Your task to perform on an android device: allow cookies in the chrome app Image 0: 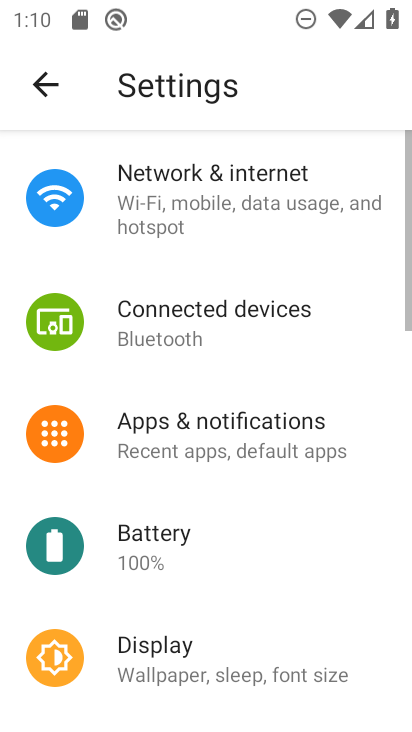
Step 0: press back button
Your task to perform on an android device: allow cookies in the chrome app Image 1: 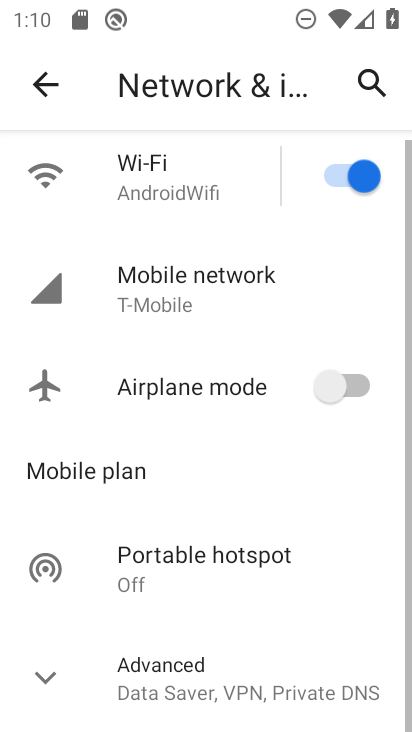
Step 1: press home button
Your task to perform on an android device: allow cookies in the chrome app Image 2: 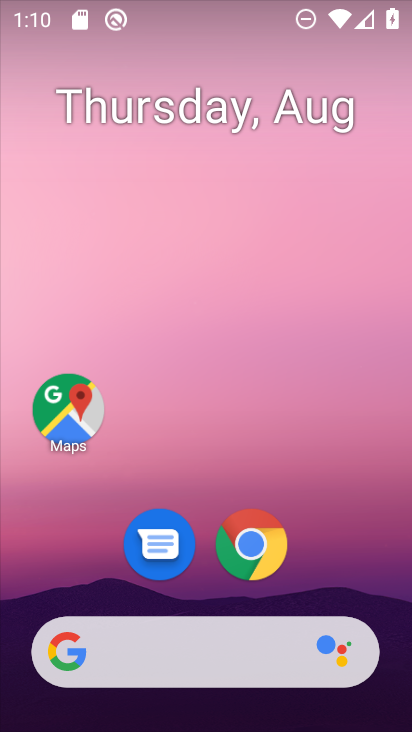
Step 2: drag from (232, 621) to (388, 10)
Your task to perform on an android device: allow cookies in the chrome app Image 3: 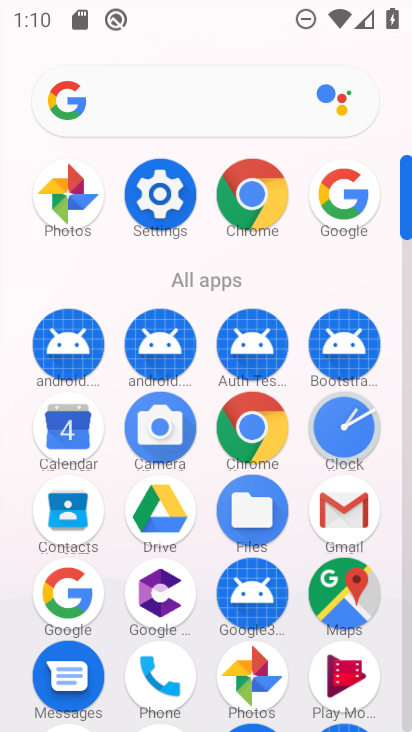
Step 3: click (224, 220)
Your task to perform on an android device: allow cookies in the chrome app Image 4: 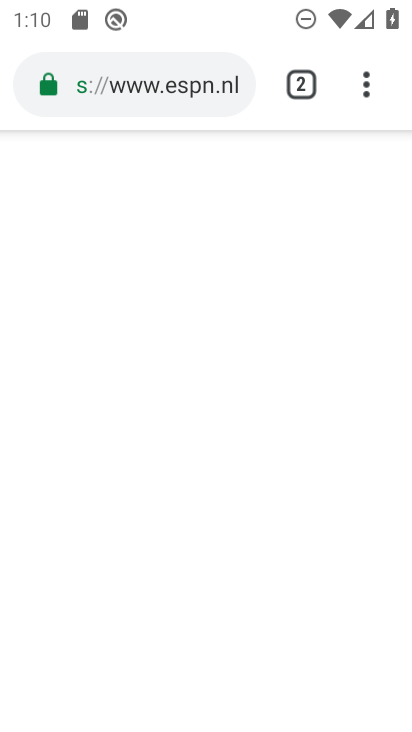
Step 4: click (356, 77)
Your task to perform on an android device: allow cookies in the chrome app Image 5: 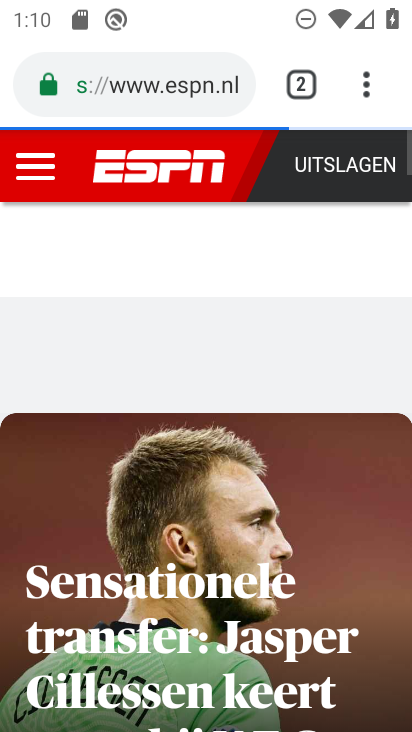
Step 5: click (359, 89)
Your task to perform on an android device: allow cookies in the chrome app Image 6: 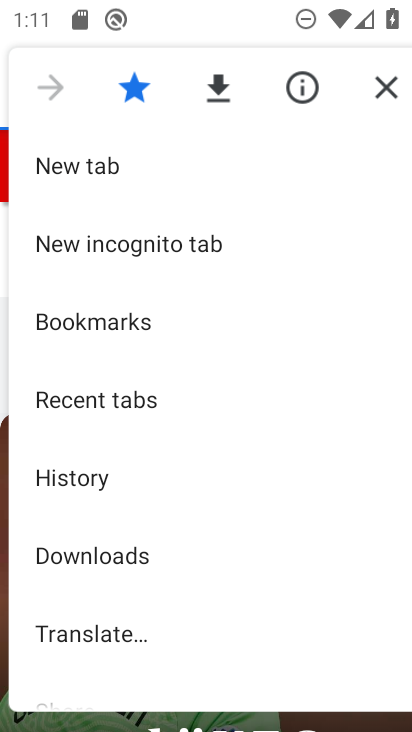
Step 6: drag from (143, 426) to (141, 246)
Your task to perform on an android device: allow cookies in the chrome app Image 7: 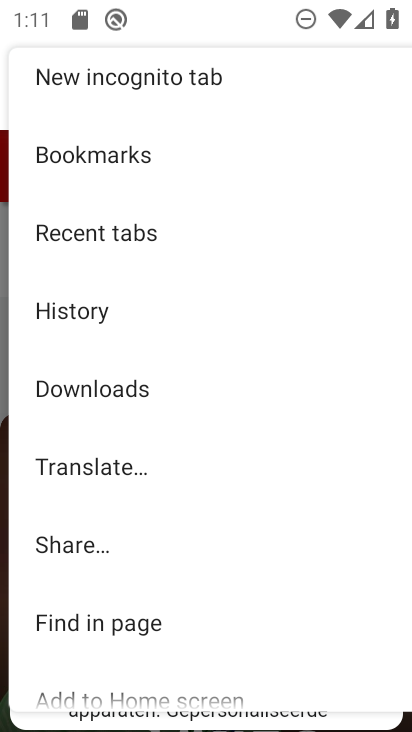
Step 7: drag from (93, 491) to (96, 206)
Your task to perform on an android device: allow cookies in the chrome app Image 8: 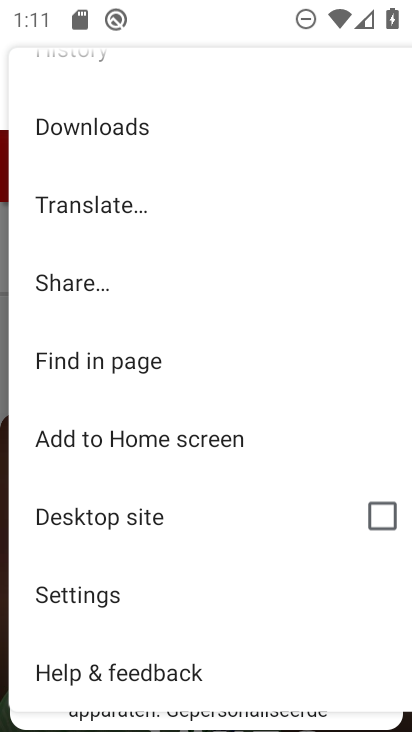
Step 8: click (41, 579)
Your task to perform on an android device: allow cookies in the chrome app Image 9: 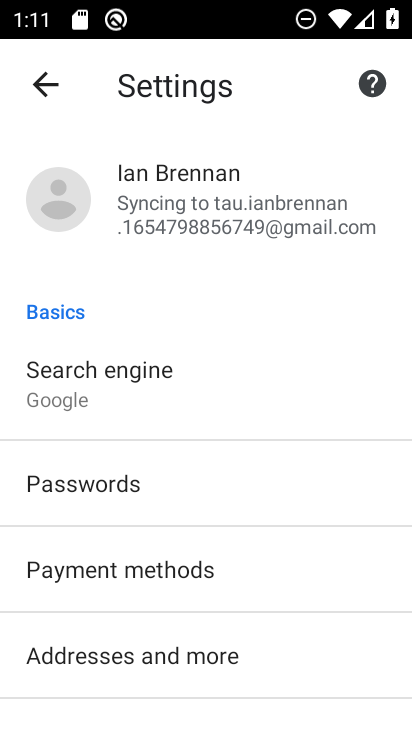
Step 9: drag from (211, 475) to (156, 99)
Your task to perform on an android device: allow cookies in the chrome app Image 10: 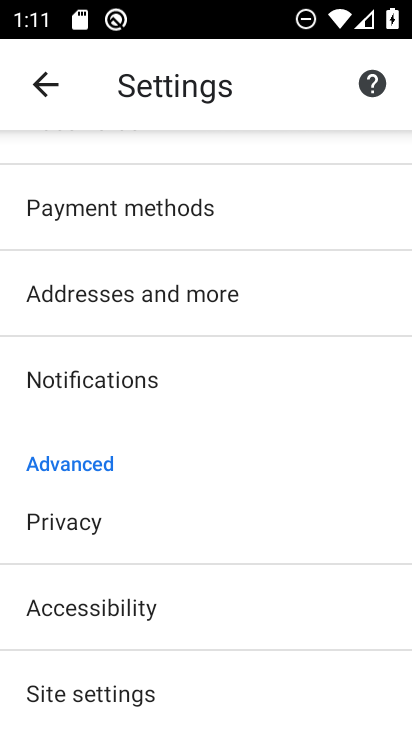
Step 10: drag from (268, 602) to (226, 30)
Your task to perform on an android device: allow cookies in the chrome app Image 11: 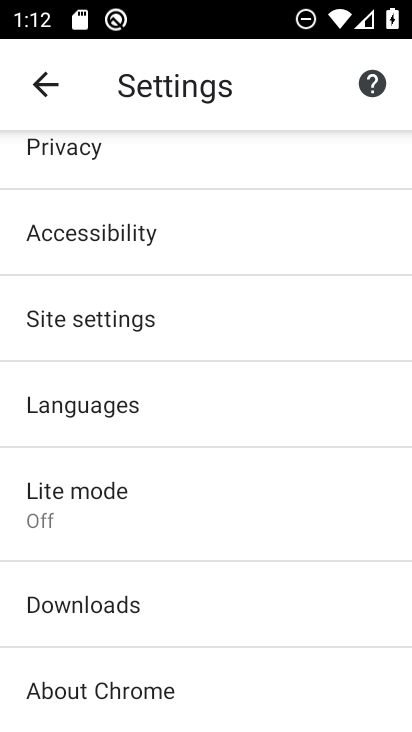
Step 11: click (184, 337)
Your task to perform on an android device: allow cookies in the chrome app Image 12: 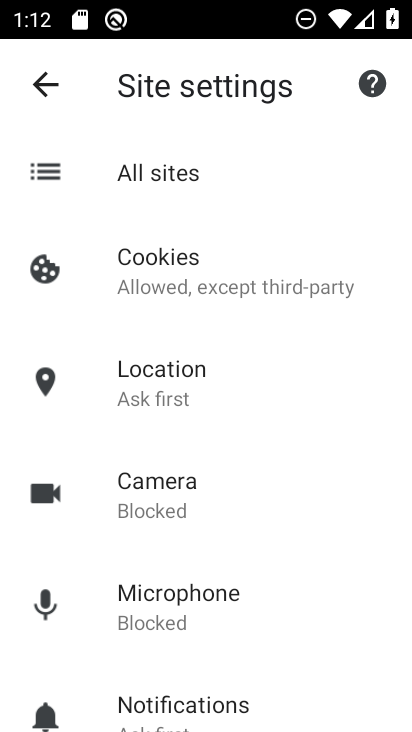
Step 12: click (123, 271)
Your task to perform on an android device: allow cookies in the chrome app Image 13: 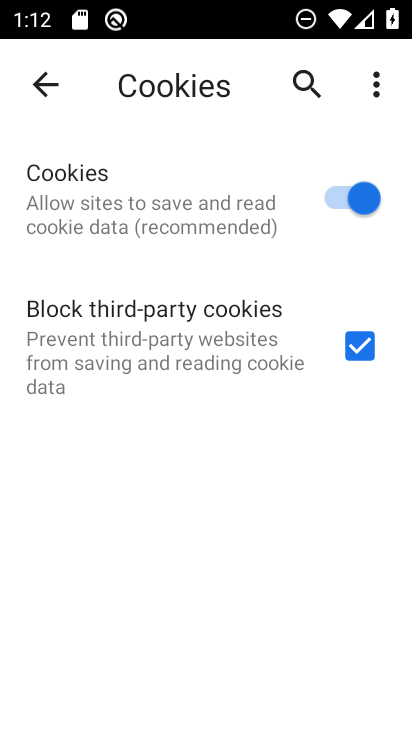
Step 13: task complete